Your task to perform on an android device: Open calendar and show me the fourth week of next month Image 0: 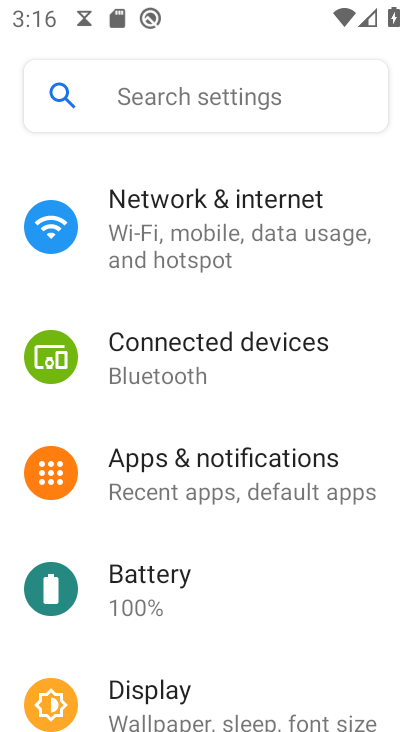
Step 0: press home button
Your task to perform on an android device: Open calendar and show me the fourth week of next month Image 1: 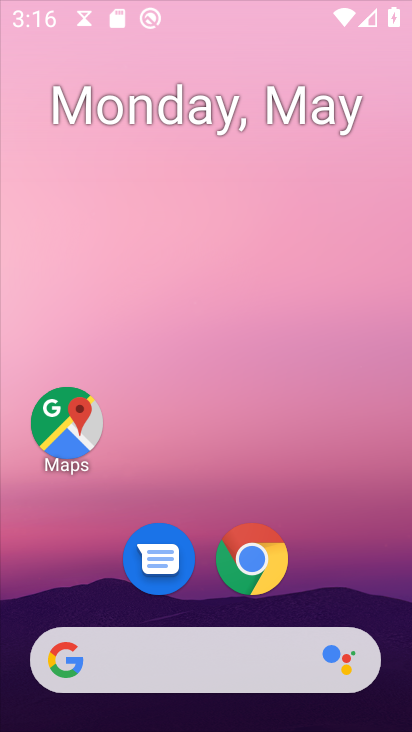
Step 1: drag from (182, 667) to (249, 318)
Your task to perform on an android device: Open calendar and show me the fourth week of next month Image 2: 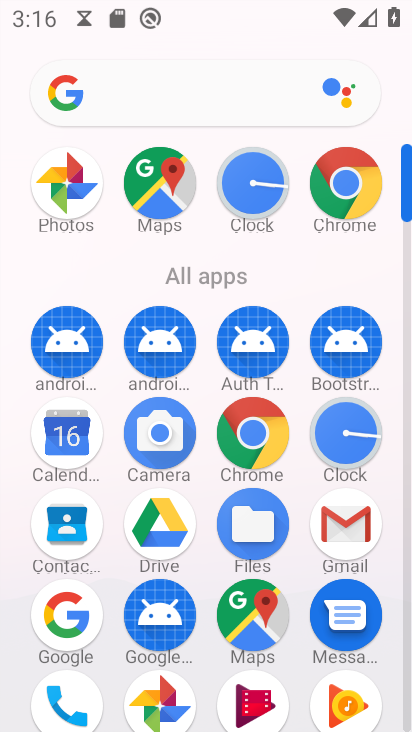
Step 2: click (66, 413)
Your task to perform on an android device: Open calendar and show me the fourth week of next month Image 3: 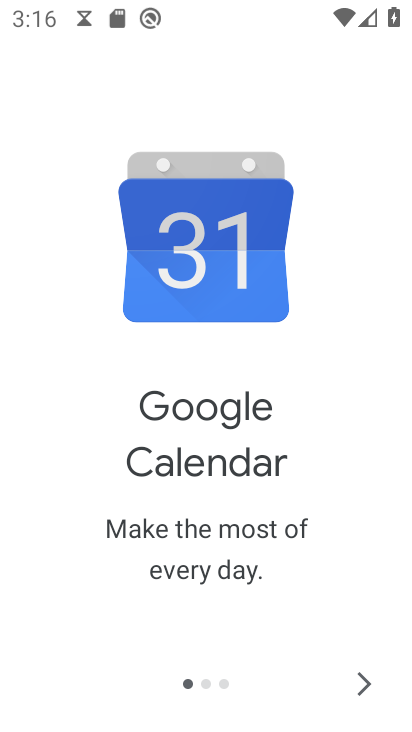
Step 3: click (345, 677)
Your task to perform on an android device: Open calendar and show me the fourth week of next month Image 4: 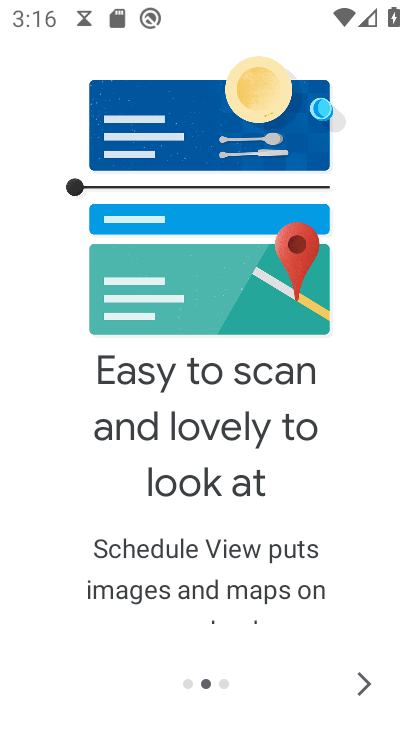
Step 4: click (345, 677)
Your task to perform on an android device: Open calendar and show me the fourth week of next month Image 5: 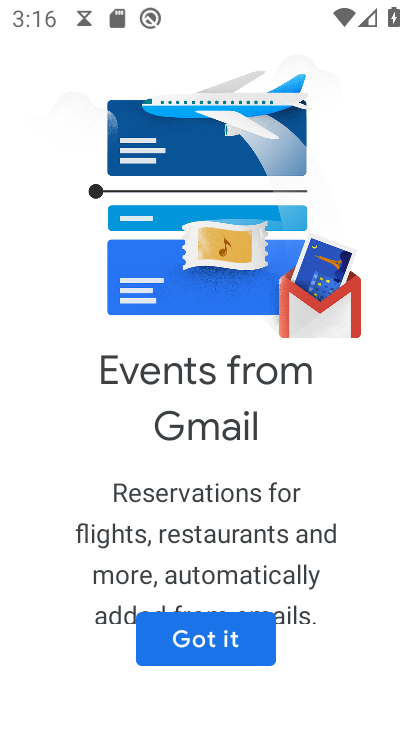
Step 5: click (345, 677)
Your task to perform on an android device: Open calendar and show me the fourth week of next month Image 6: 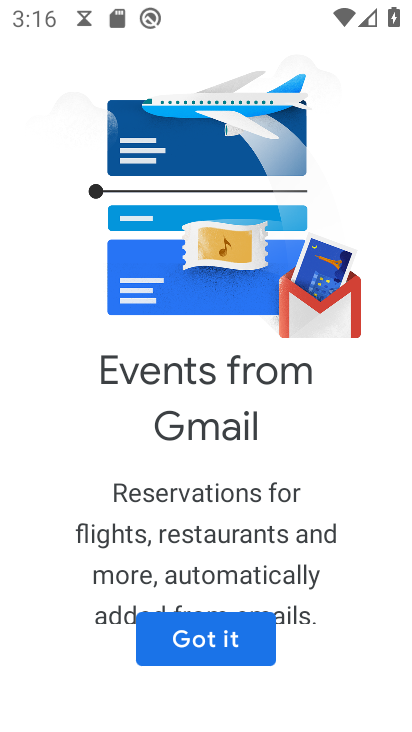
Step 6: click (261, 647)
Your task to perform on an android device: Open calendar and show me the fourth week of next month Image 7: 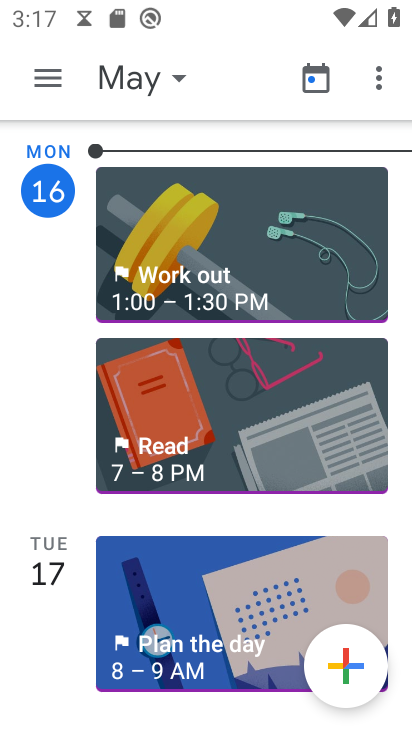
Step 7: click (33, 80)
Your task to perform on an android device: Open calendar and show me the fourth week of next month Image 8: 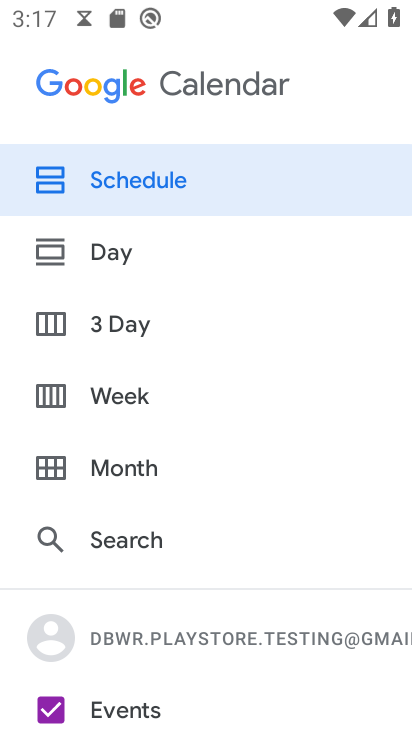
Step 8: click (127, 471)
Your task to perform on an android device: Open calendar and show me the fourth week of next month Image 9: 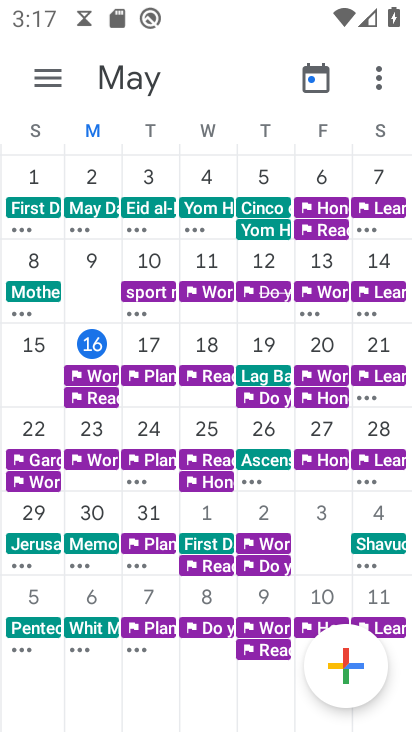
Step 9: task complete